Your task to perform on an android device: delete the emails in spam in the gmail app Image 0: 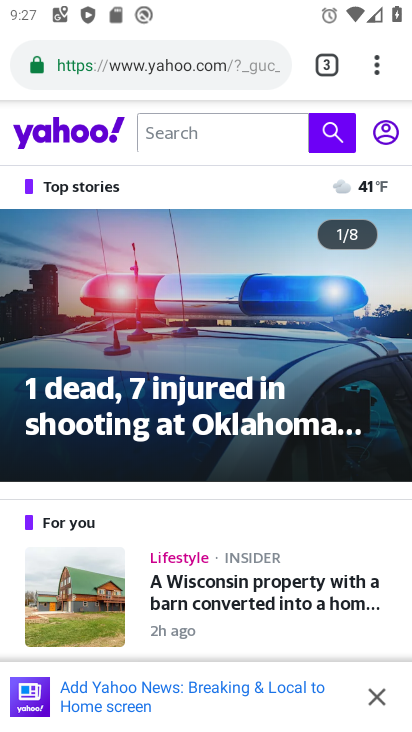
Step 0: press home button
Your task to perform on an android device: delete the emails in spam in the gmail app Image 1: 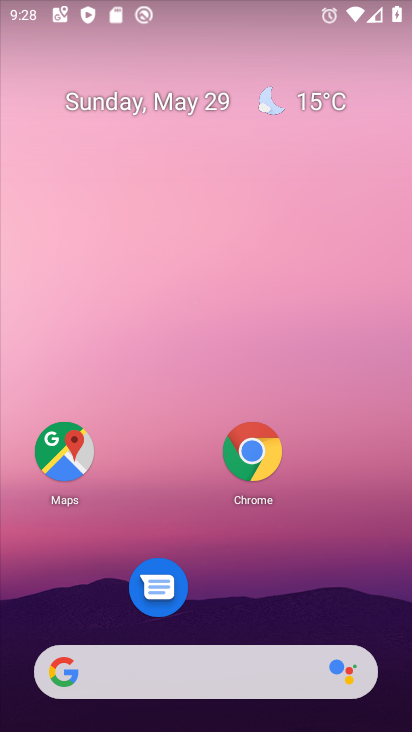
Step 1: drag from (237, 612) to (227, 183)
Your task to perform on an android device: delete the emails in spam in the gmail app Image 2: 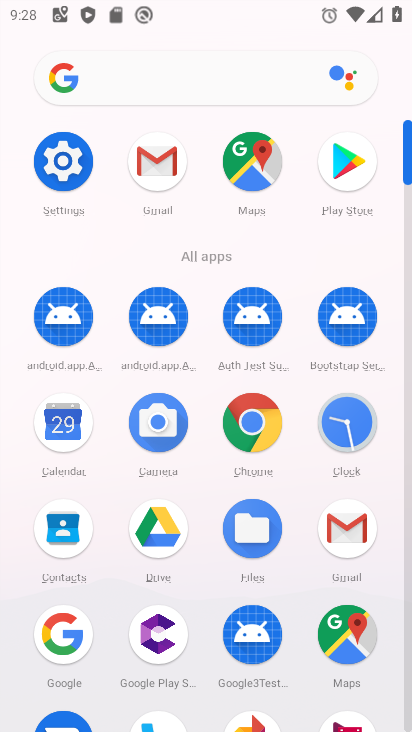
Step 2: drag from (188, 615) to (191, 66)
Your task to perform on an android device: delete the emails in spam in the gmail app Image 3: 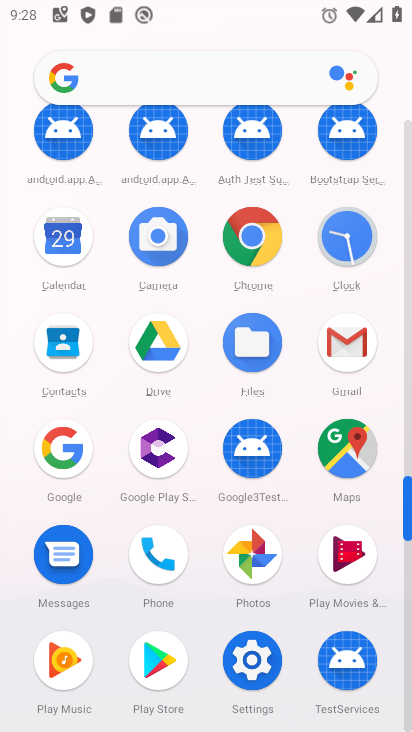
Step 3: click (324, 351)
Your task to perform on an android device: delete the emails in spam in the gmail app Image 4: 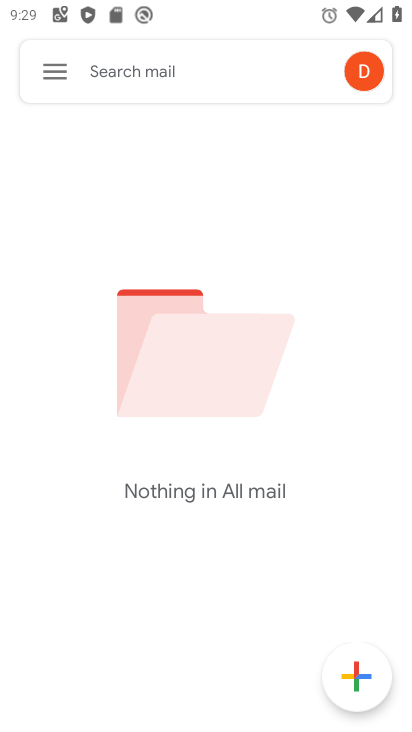
Step 4: click (49, 79)
Your task to perform on an android device: delete the emails in spam in the gmail app Image 5: 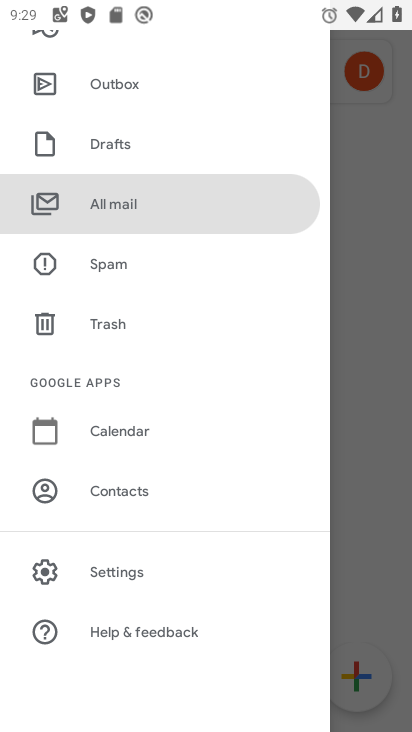
Step 5: click (118, 269)
Your task to perform on an android device: delete the emails in spam in the gmail app Image 6: 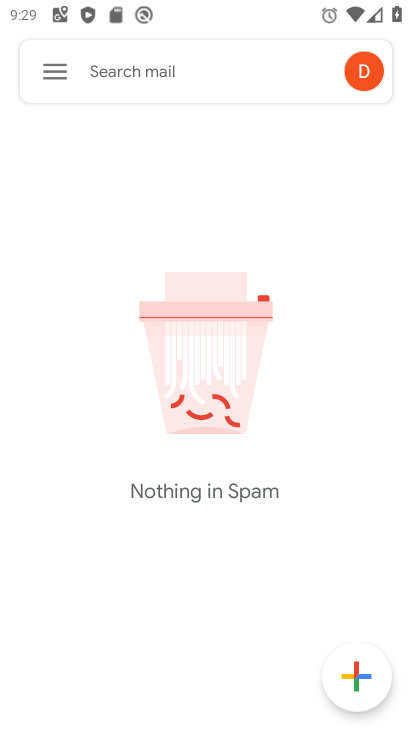
Step 6: task complete